Your task to perform on an android device: Find coffee shops on Maps Image 0: 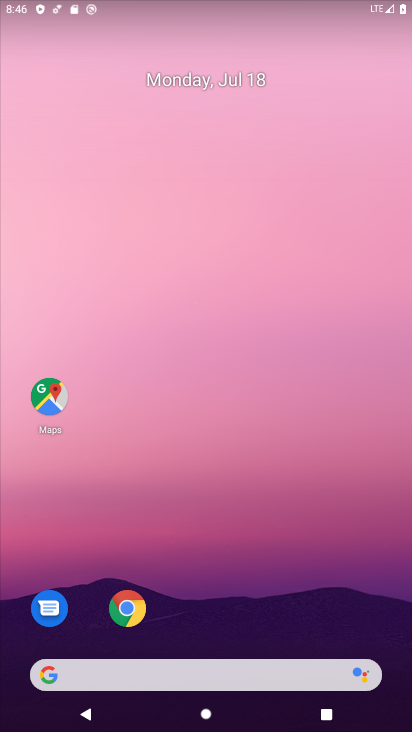
Step 0: click (42, 388)
Your task to perform on an android device: Find coffee shops on Maps Image 1: 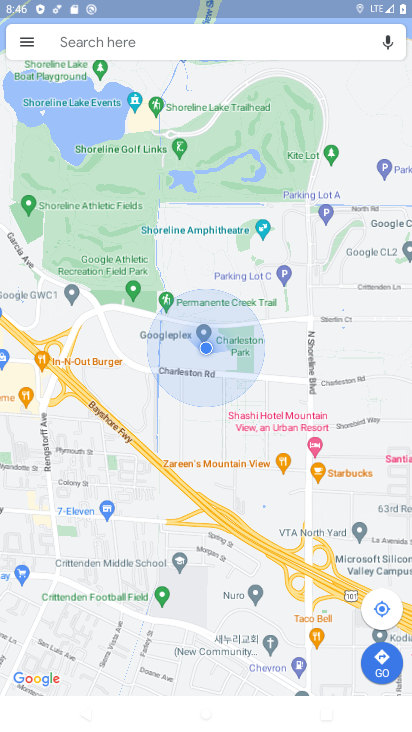
Step 1: click (100, 44)
Your task to perform on an android device: Find coffee shops on Maps Image 2: 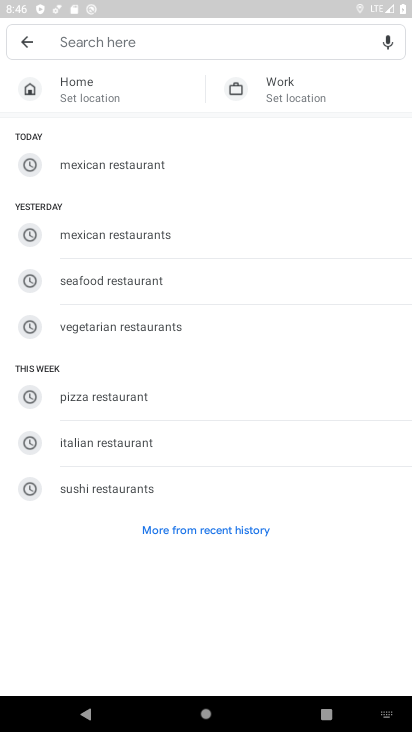
Step 2: click (83, 32)
Your task to perform on an android device: Find coffee shops on Maps Image 3: 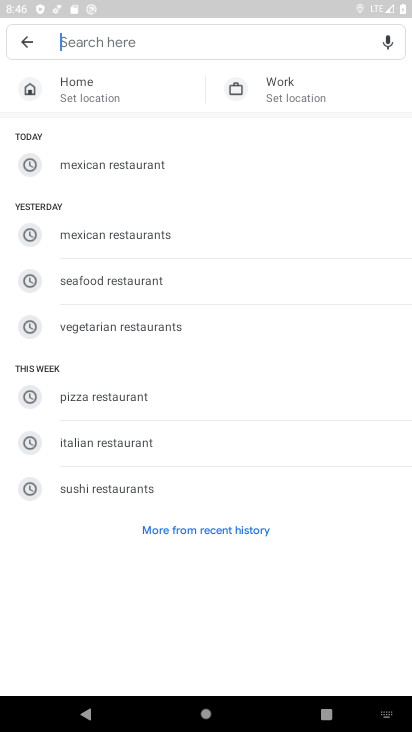
Step 3: type "coffee shop"
Your task to perform on an android device: Find coffee shops on Maps Image 4: 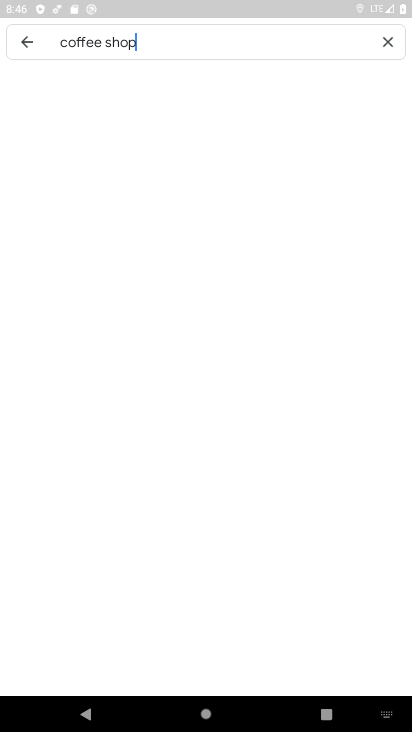
Step 4: type ""
Your task to perform on an android device: Find coffee shops on Maps Image 5: 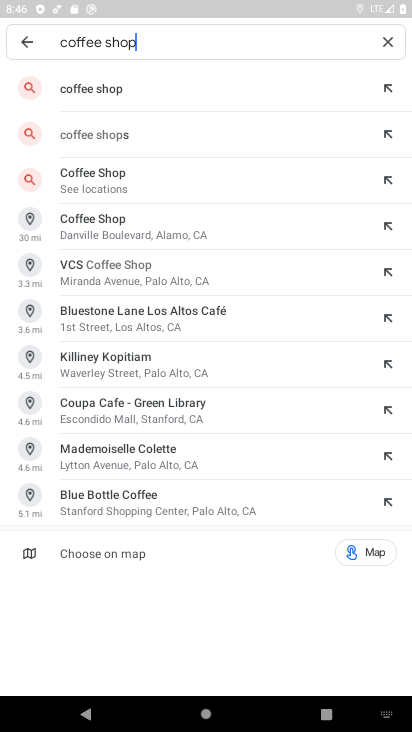
Step 5: click (89, 97)
Your task to perform on an android device: Find coffee shops on Maps Image 6: 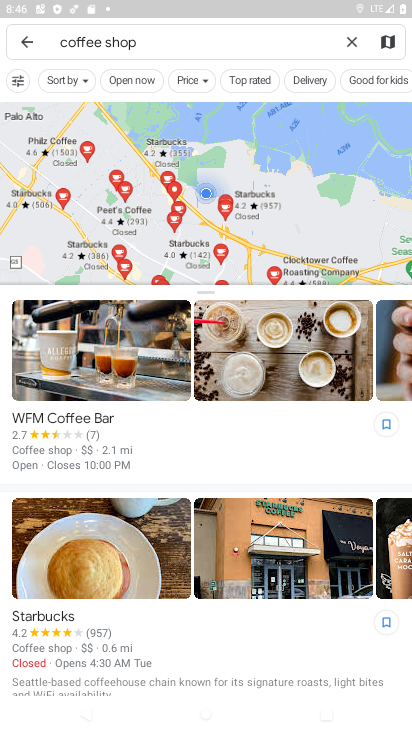
Step 6: task complete